Your task to perform on an android device: Open the phone app and click the voicemail tab. Image 0: 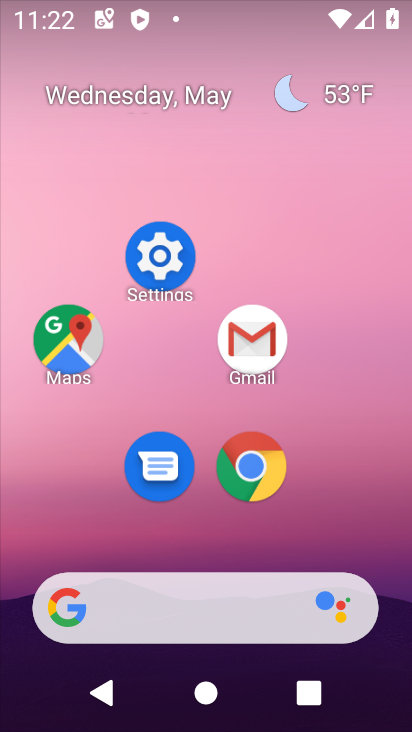
Step 0: drag from (202, 539) to (297, 141)
Your task to perform on an android device: Open the phone app and click the voicemail tab. Image 1: 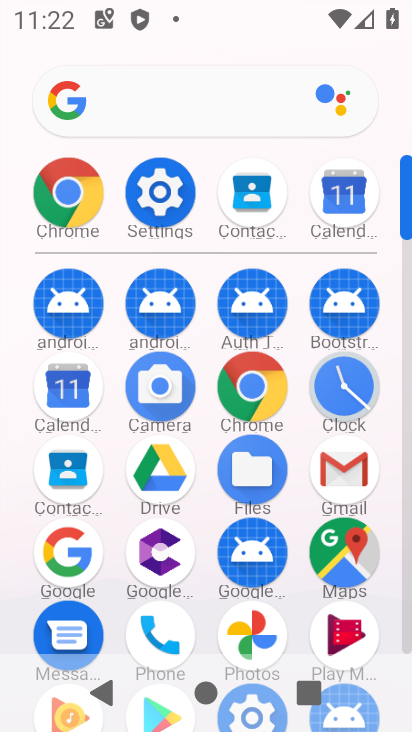
Step 1: click (162, 628)
Your task to perform on an android device: Open the phone app and click the voicemail tab. Image 2: 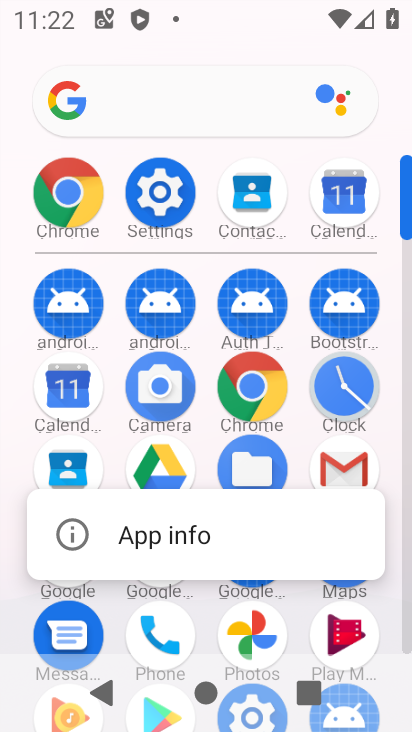
Step 2: click (173, 531)
Your task to perform on an android device: Open the phone app and click the voicemail tab. Image 3: 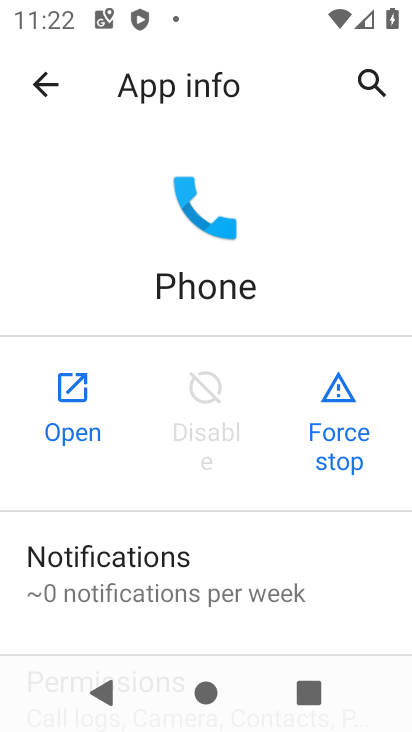
Step 3: click (79, 433)
Your task to perform on an android device: Open the phone app and click the voicemail tab. Image 4: 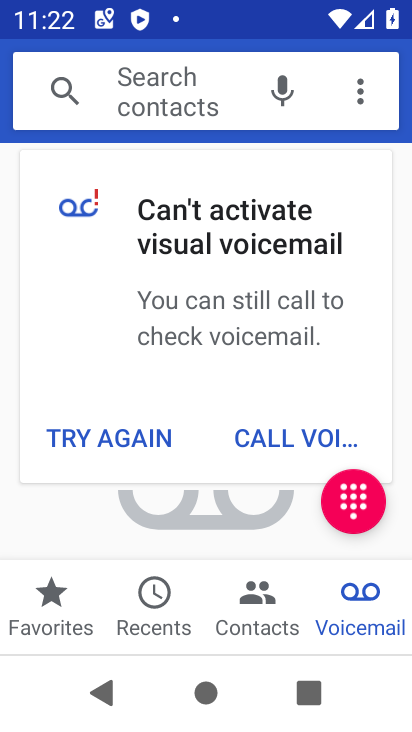
Step 4: click (363, 589)
Your task to perform on an android device: Open the phone app and click the voicemail tab. Image 5: 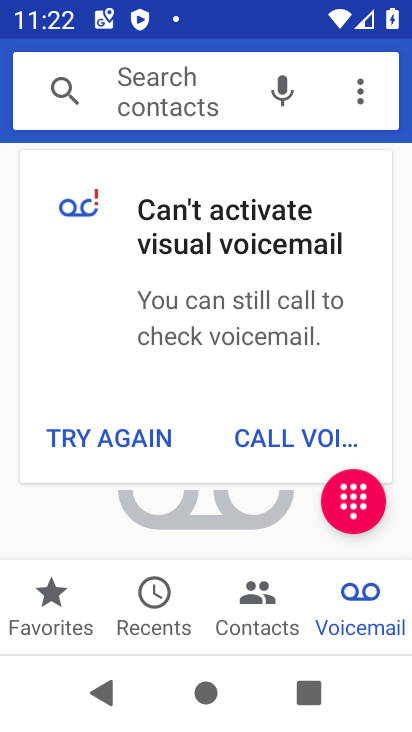
Step 5: click (363, 605)
Your task to perform on an android device: Open the phone app and click the voicemail tab. Image 6: 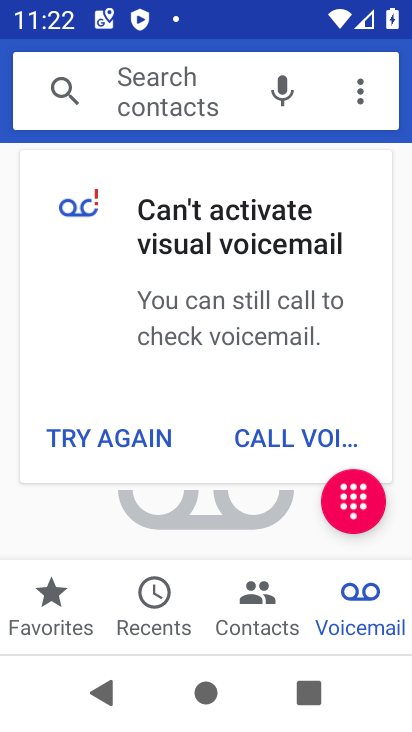
Step 6: task complete